Your task to perform on an android device: find snoozed emails in the gmail app Image 0: 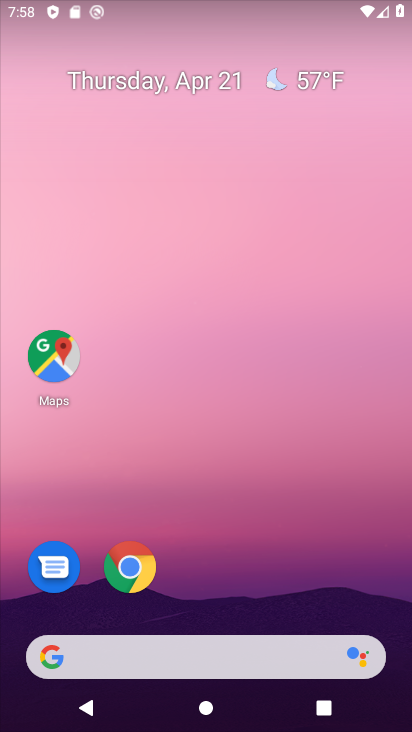
Step 0: drag from (210, 535) to (213, 136)
Your task to perform on an android device: find snoozed emails in the gmail app Image 1: 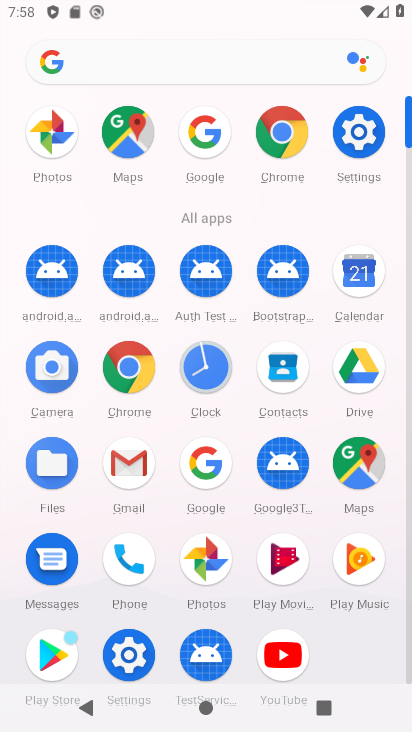
Step 1: click (132, 473)
Your task to perform on an android device: find snoozed emails in the gmail app Image 2: 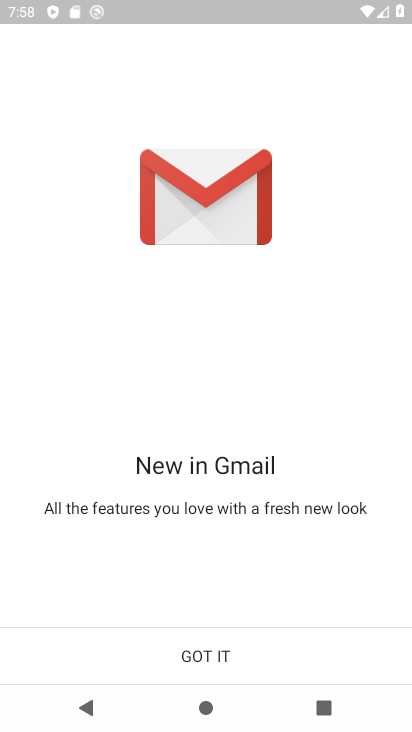
Step 2: click (207, 635)
Your task to perform on an android device: find snoozed emails in the gmail app Image 3: 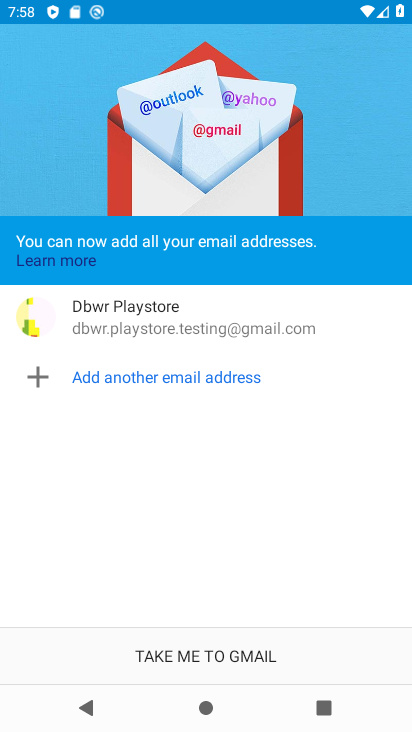
Step 3: click (207, 635)
Your task to perform on an android device: find snoozed emails in the gmail app Image 4: 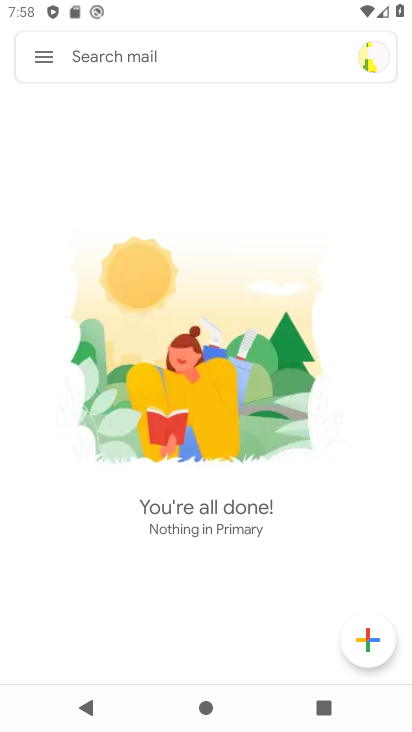
Step 4: click (43, 60)
Your task to perform on an android device: find snoozed emails in the gmail app Image 5: 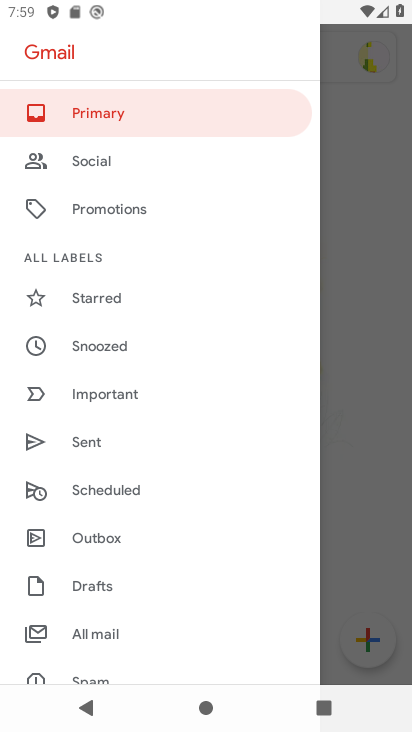
Step 5: click (131, 350)
Your task to perform on an android device: find snoozed emails in the gmail app Image 6: 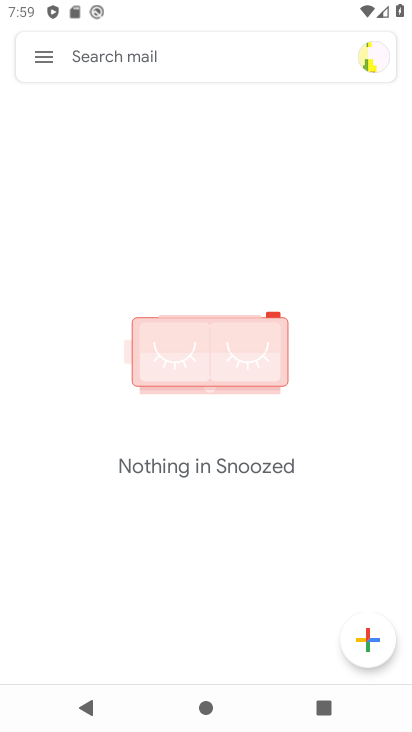
Step 6: task complete